Your task to perform on an android device: change the clock style Image 0: 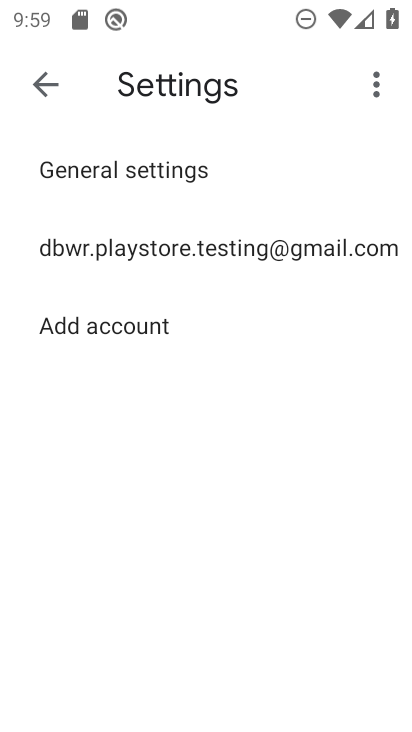
Step 0: press home button
Your task to perform on an android device: change the clock style Image 1: 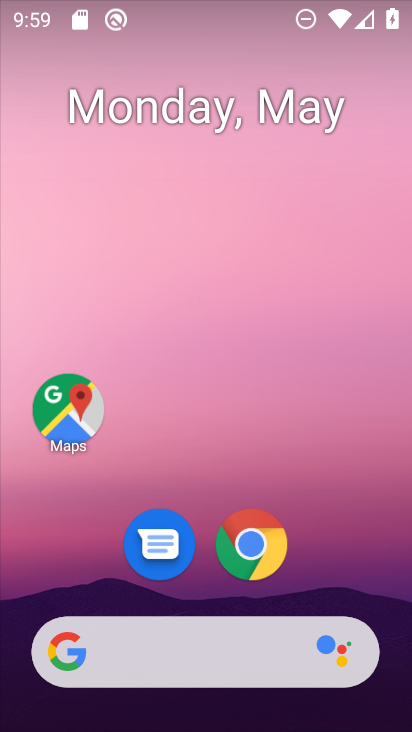
Step 1: drag from (390, 555) to (344, 242)
Your task to perform on an android device: change the clock style Image 2: 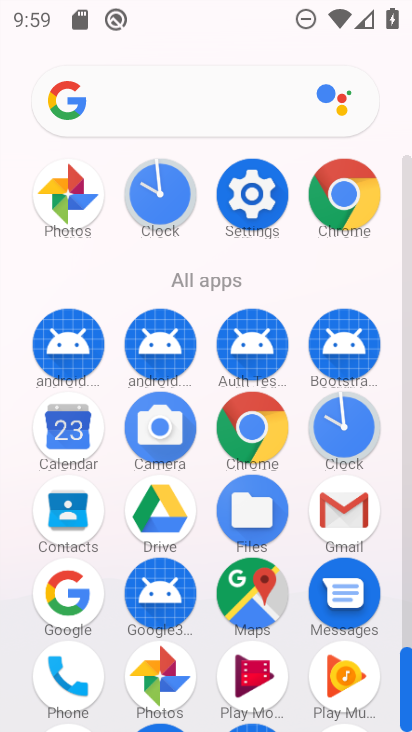
Step 2: click (158, 201)
Your task to perform on an android device: change the clock style Image 3: 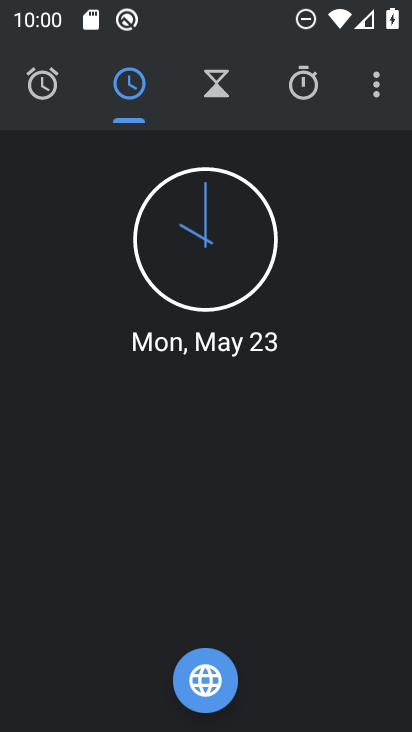
Step 3: click (384, 88)
Your task to perform on an android device: change the clock style Image 4: 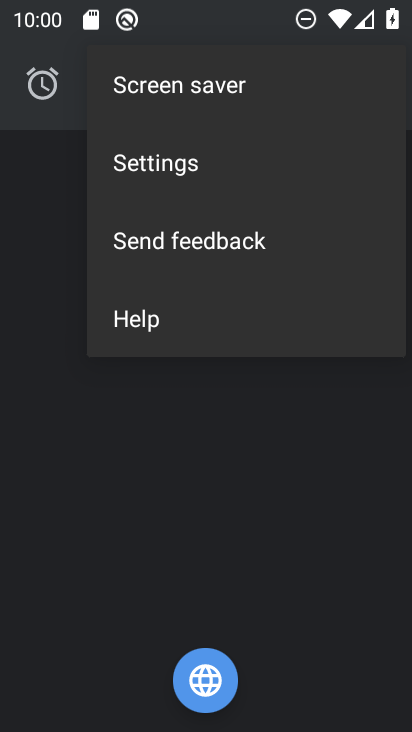
Step 4: click (176, 168)
Your task to perform on an android device: change the clock style Image 5: 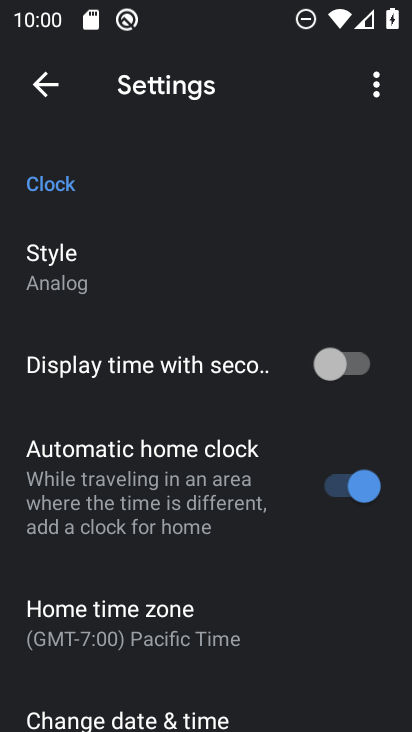
Step 5: click (64, 260)
Your task to perform on an android device: change the clock style Image 6: 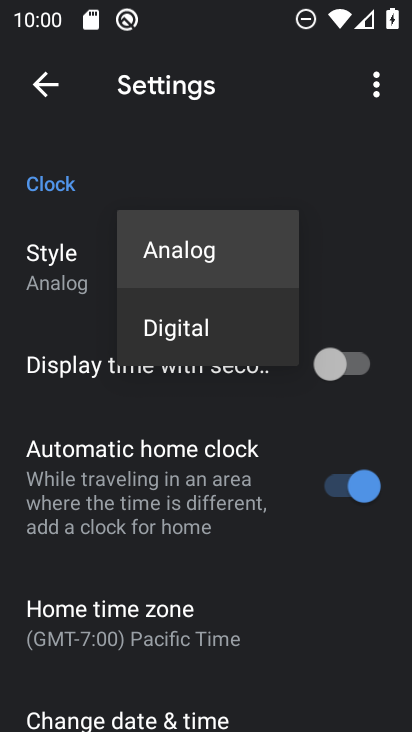
Step 6: click (172, 332)
Your task to perform on an android device: change the clock style Image 7: 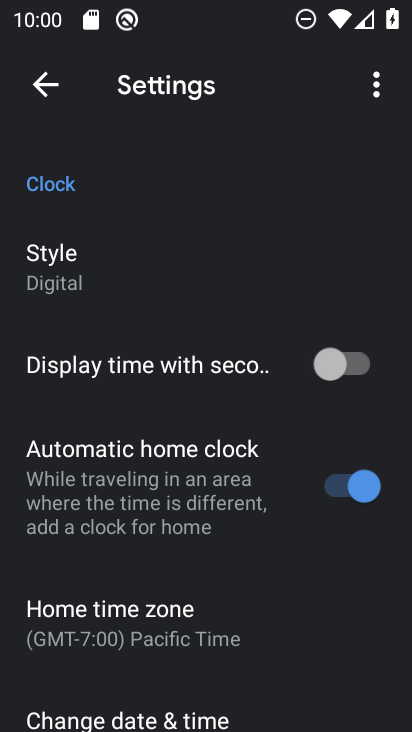
Step 7: task complete